Your task to perform on an android device: Open display settings Image 0: 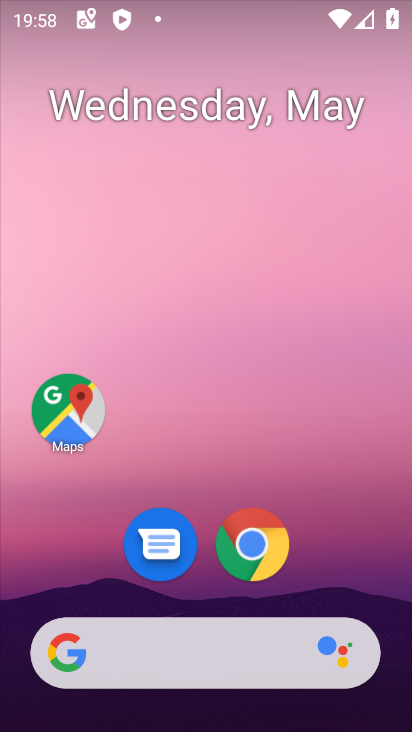
Step 0: drag from (201, 599) to (205, 188)
Your task to perform on an android device: Open display settings Image 1: 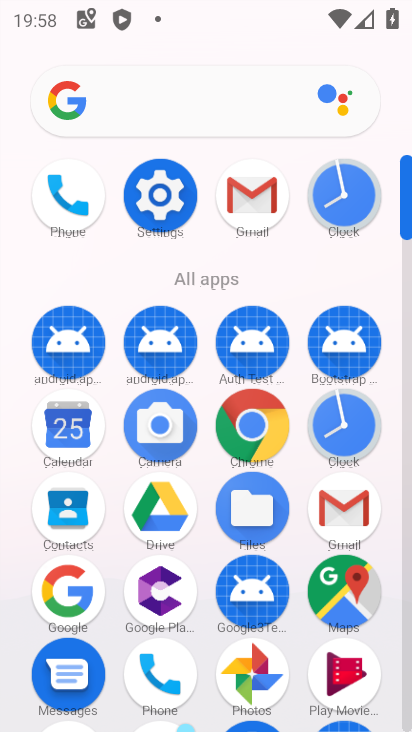
Step 1: click (157, 199)
Your task to perform on an android device: Open display settings Image 2: 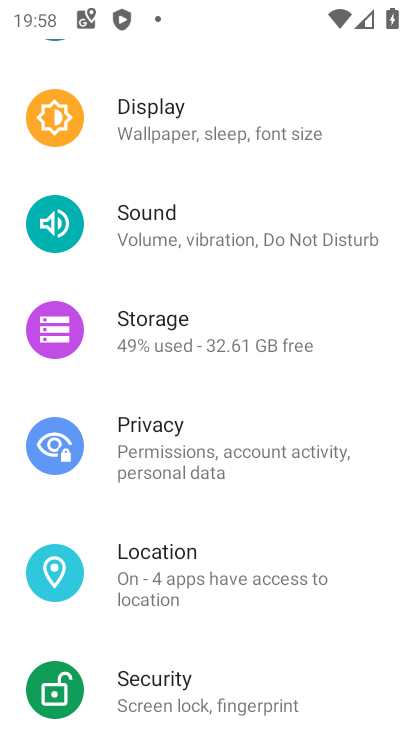
Step 2: click (145, 98)
Your task to perform on an android device: Open display settings Image 3: 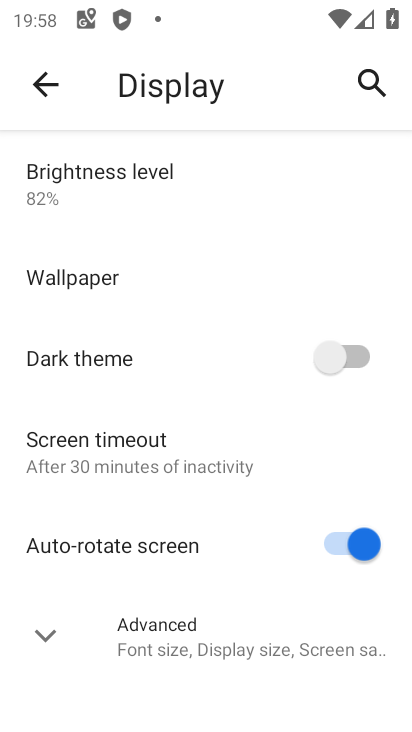
Step 3: task complete